Your task to perform on an android device: Open Google Chrome and open the bookmarks view Image 0: 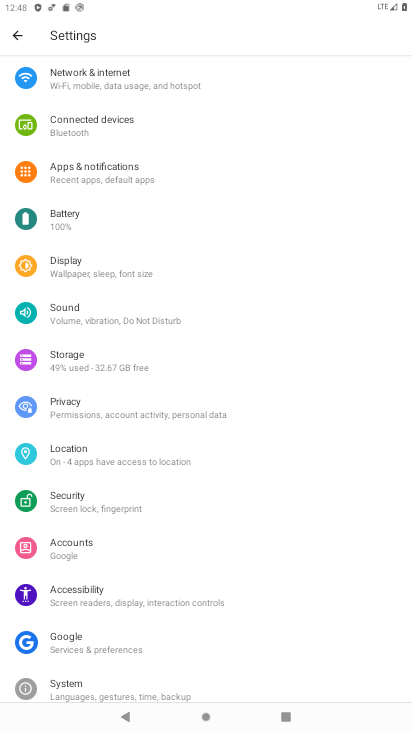
Step 0: press home button
Your task to perform on an android device: Open Google Chrome and open the bookmarks view Image 1: 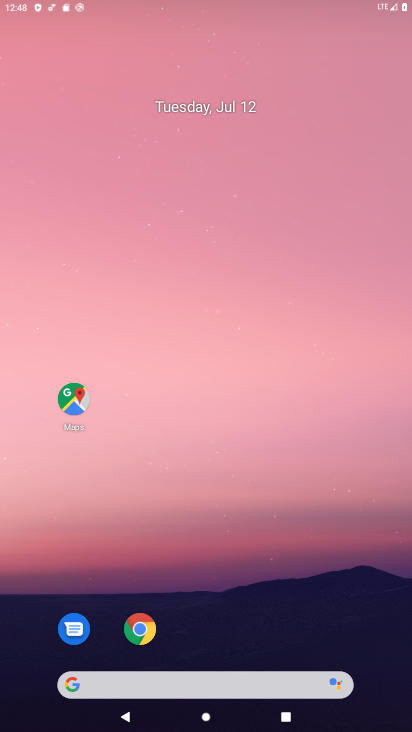
Step 1: click (340, 29)
Your task to perform on an android device: Open Google Chrome and open the bookmarks view Image 2: 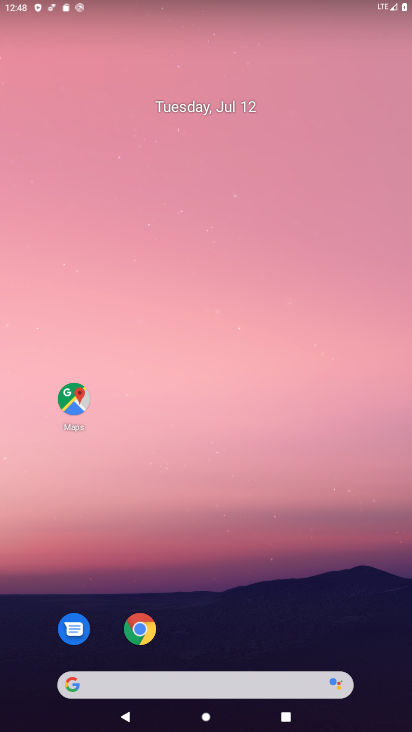
Step 2: drag from (141, 671) to (204, 222)
Your task to perform on an android device: Open Google Chrome and open the bookmarks view Image 3: 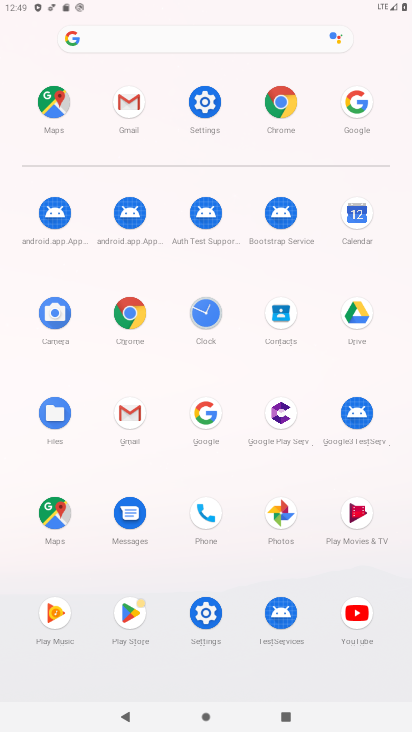
Step 3: click (138, 322)
Your task to perform on an android device: Open Google Chrome and open the bookmarks view Image 4: 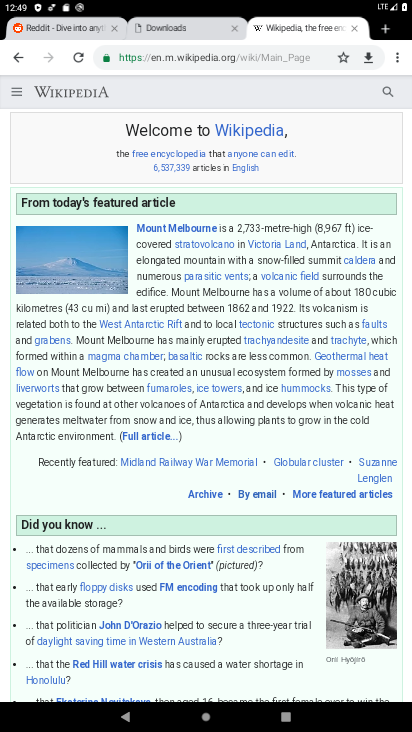
Step 4: task complete